Your task to perform on an android device: turn on priority inbox in the gmail app Image 0: 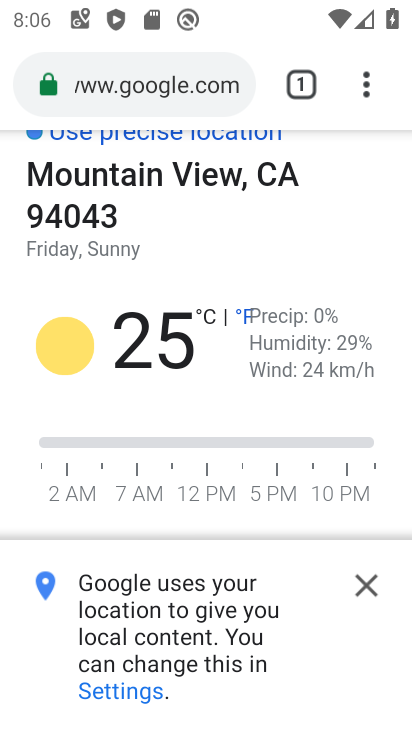
Step 0: press home button
Your task to perform on an android device: turn on priority inbox in the gmail app Image 1: 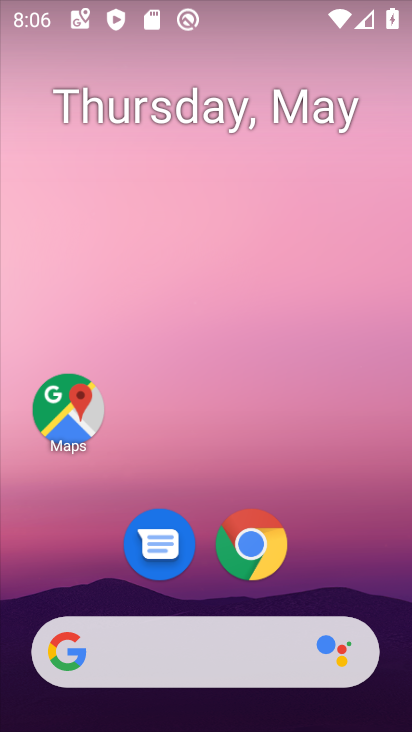
Step 1: drag from (370, 581) to (374, 71)
Your task to perform on an android device: turn on priority inbox in the gmail app Image 2: 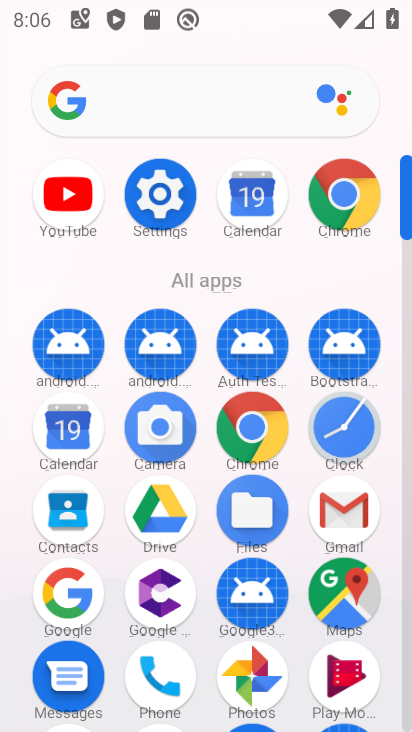
Step 2: click (327, 536)
Your task to perform on an android device: turn on priority inbox in the gmail app Image 3: 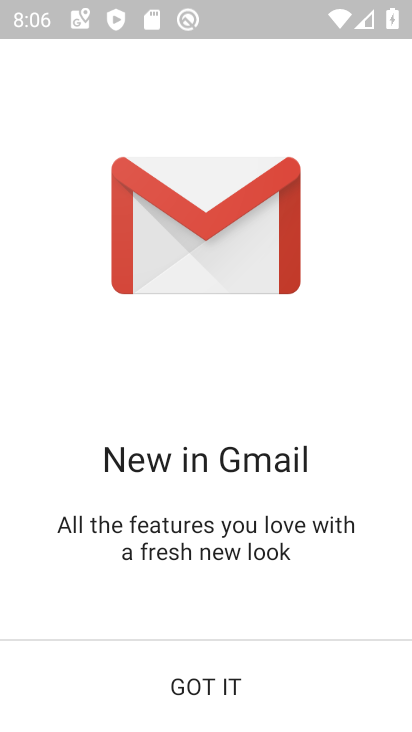
Step 3: click (197, 707)
Your task to perform on an android device: turn on priority inbox in the gmail app Image 4: 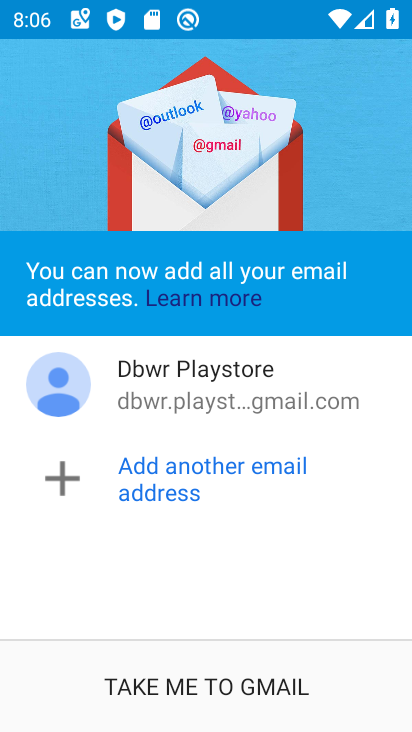
Step 4: click (197, 707)
Your task to perform on an android device: turn on priority inbox in the gmail app Image 5: 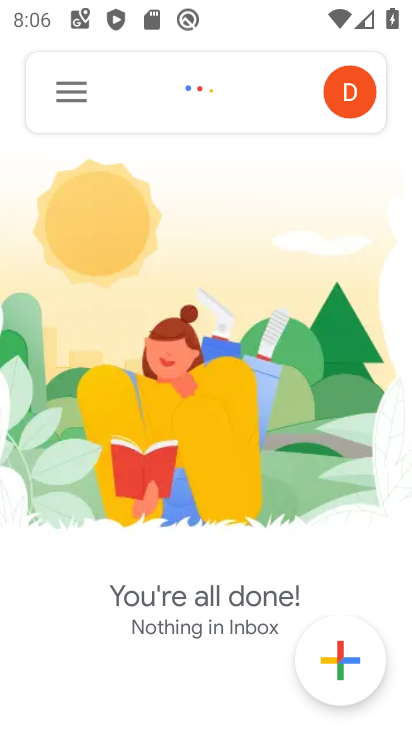
Step 5: click (76, 81)
Your task to perform on an android device: turn on priority inbox in the gmail app Image 6: 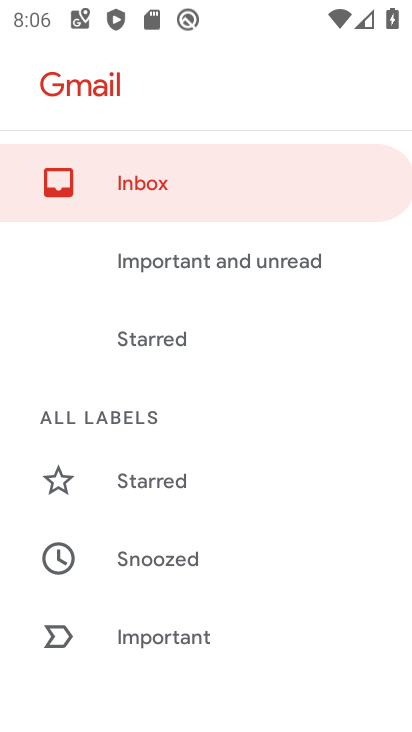
Step 6: drag from (171, 596) to (181, 318)
Your task to perform on an android device: turn on priority inbox in the gmail app Image 7: 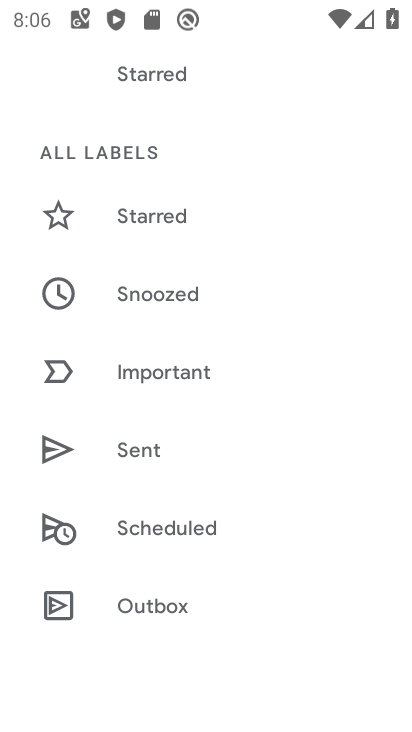
Step 7: drag from (211, 662) to (211, 253)
Your task to perform on an android device: turn on priority inbox in the gmail app Image 8: 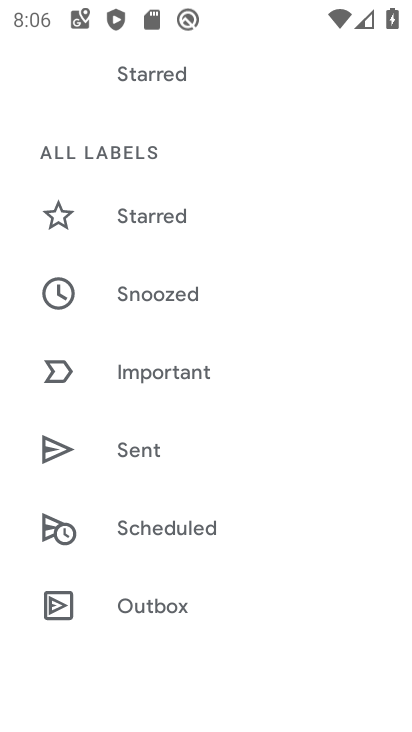
Step 8: drag from (228, 581) to (233, 276)
Your task to perform on an android device: turn on priority inbox in the gmail app Image 9: 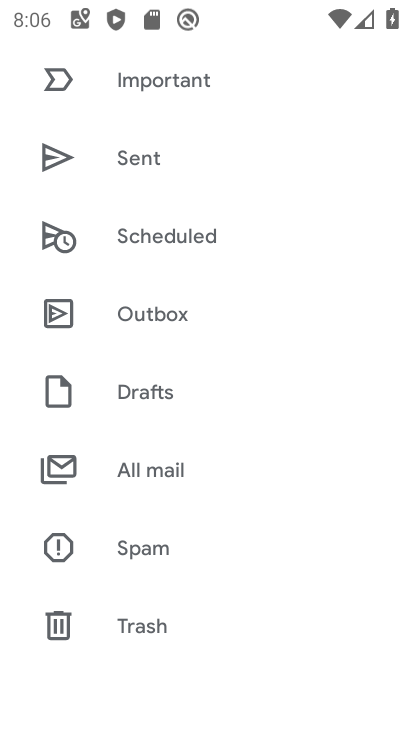
Step 9: drag from (157, 590) to (181, 134)
Your task to perform on an android device: turn on priority inbox in the gmail app Image 10: 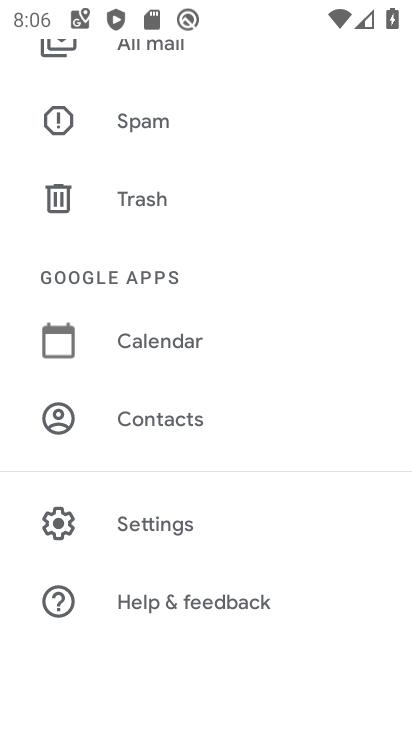
Step 10: click (168, 534)
Your task to perform on an android device: turn on priority inbox in the gmail app Image 11: 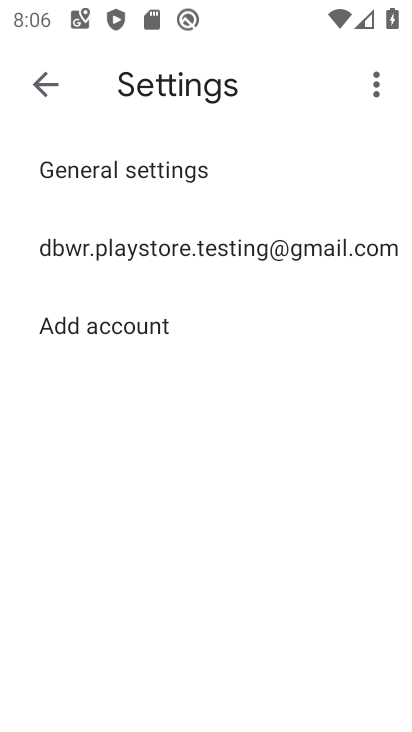
Step 11: click (238, 263)
Your task to perform on an android device: turn on priority inbox in the gmail app Image 12: 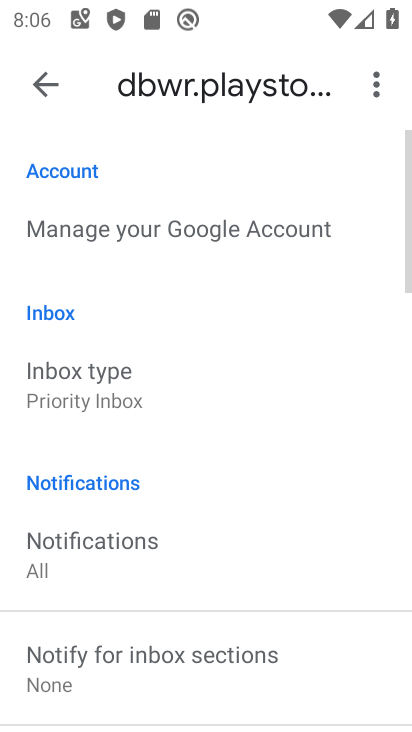
Step 12: click (169, 410)
Your task to perform on an android device: turn on priority inbox in the gmail app Image 13: 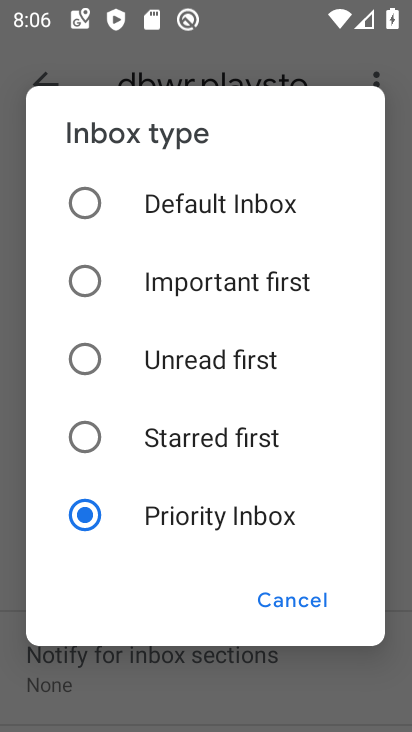
Step 13: click (253, 512)
Your task to perform on an android device: turn on priority inbox in the gmail app Image 14: 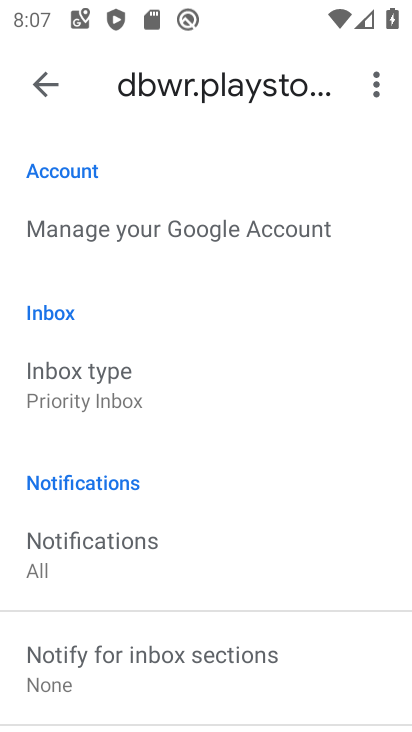
Step 14: task complete